Your task to perform on an android device: turn off priority inbox in the gmail app Image 0: 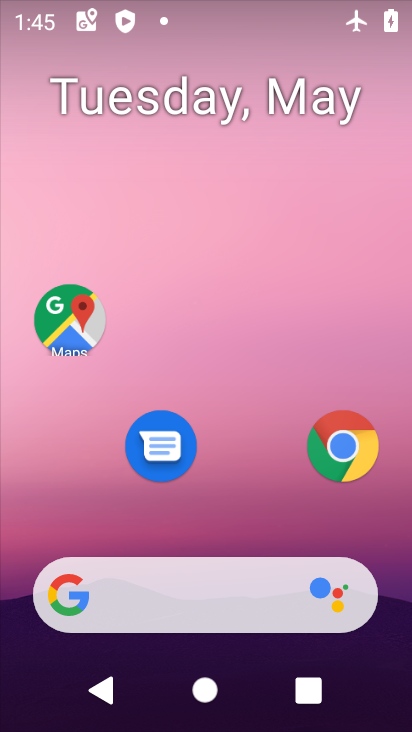
Step 0: drag from (270, 544) to (324, 4)
Your task to perform on an android device: turn off priority inbox in the gmail app Image 1: 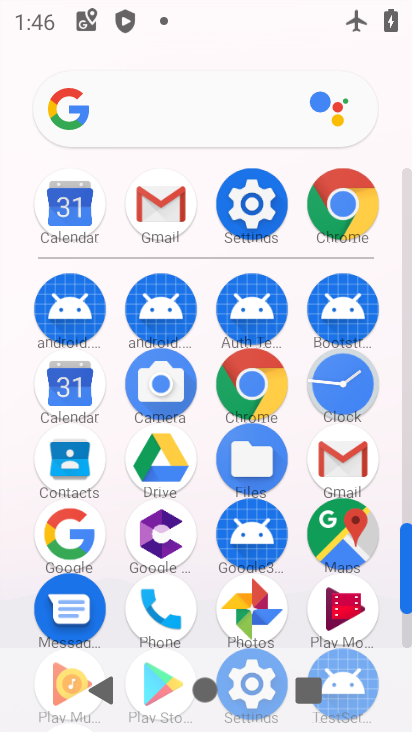
Step 1: click (333, 450)
Your task to perform on an android device: turn off priority inbox in the gmail app Image 2: 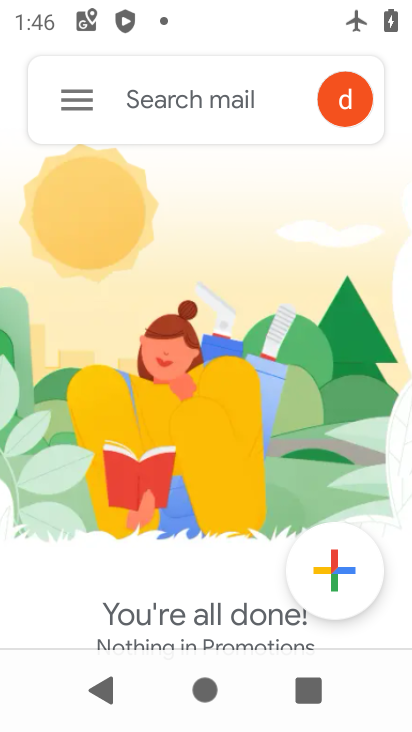
Step 2: click (81, 105)
Your task to perform on an android device: turn off priority inbox in the gmail app Image 3: 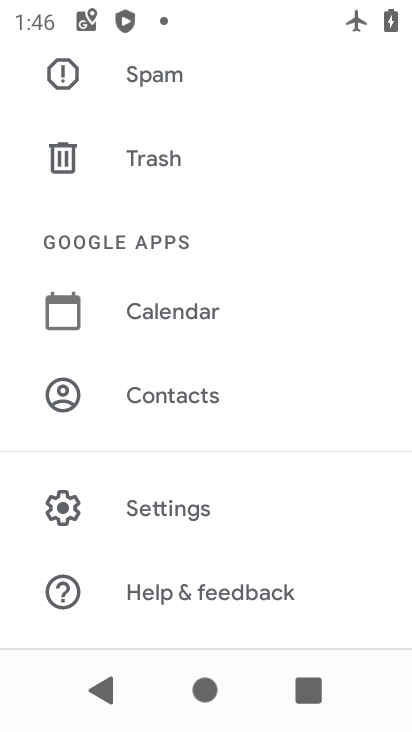
Step 3: click (129, 522)
Your task to perform on an android device: turn off priority inbox in the gmail app Image 4: 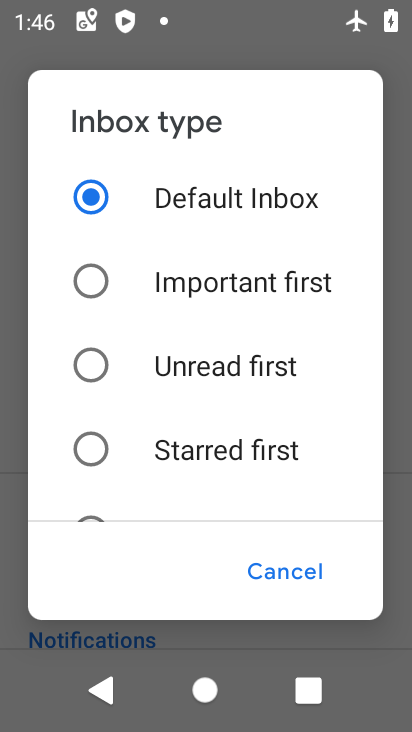
Step 4: task complete